Your task to perform on an android device: Go to privacy settings Image 0: 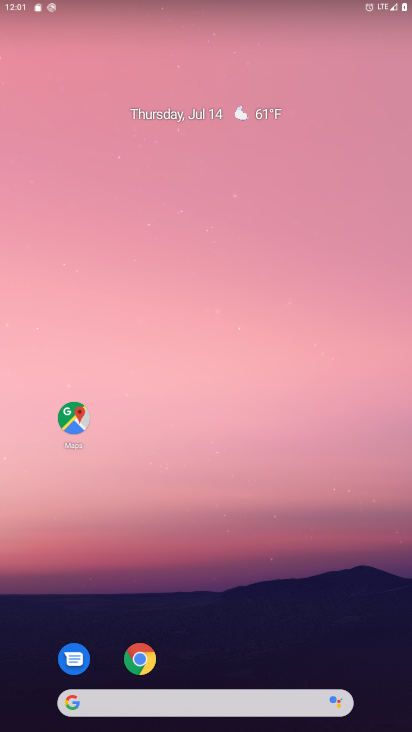
Step 0: drag from (218, 677) to (238, 36)
Your task to perform on an android device: Go to privacy settings Image 1: 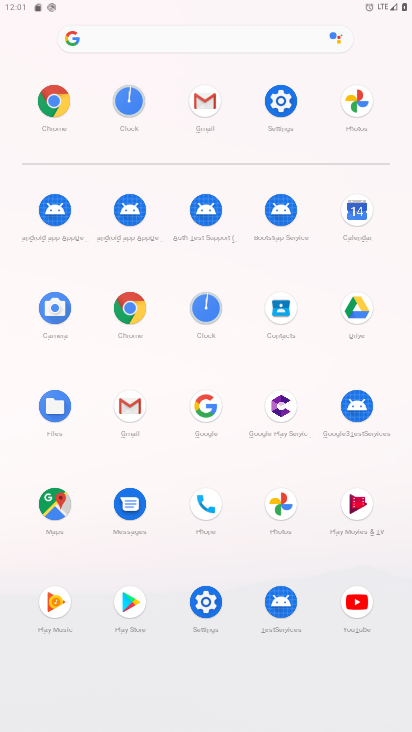
Step 1: click (280, 96)
Your task to perform on an android device: Go to privacy settings Image 2: 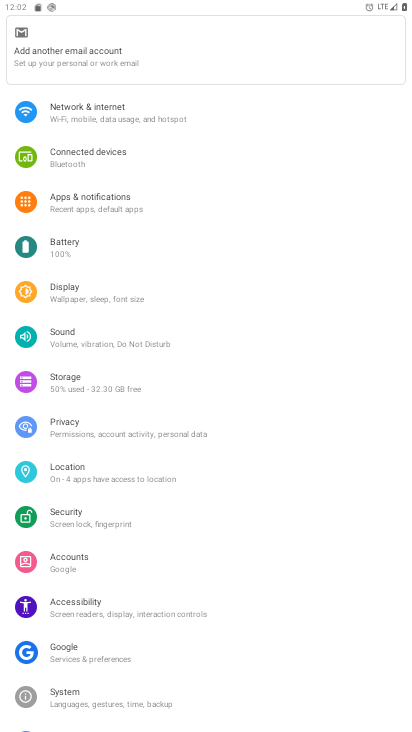
Step 2: click (86, 420)
Your task to perform on an android device: Go to privacy settings Image 3: 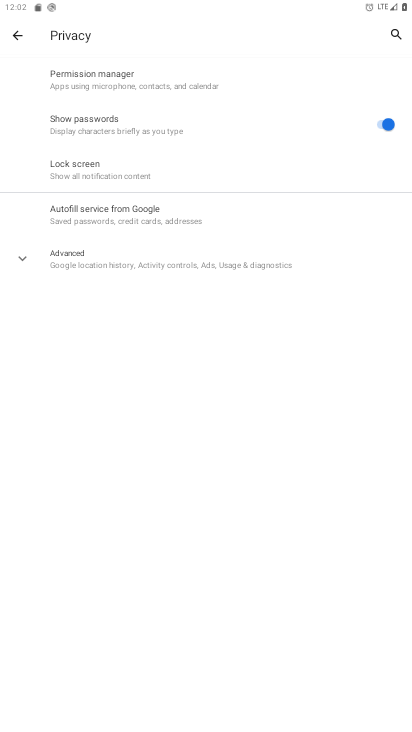
Step 3: click (22, 258)
Your task to perform on an android device: Go to privacy settings Image 4: 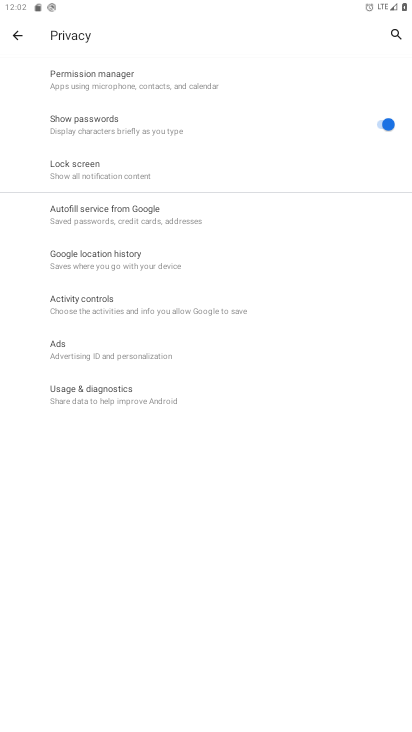
Step 4: task complete